Your task to perform on an android device: Show me popular videos on Youtube Image 0: 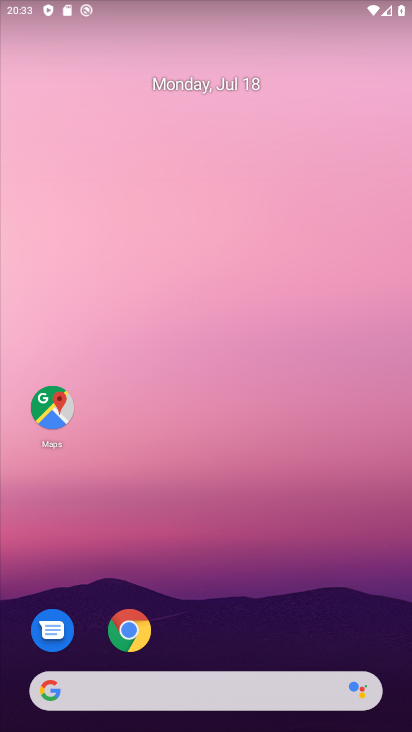
Step 0: drag from (226, 632) to (222, 320)
Your task to perform on an android device: Show me popular videos on Youtube Image 1: 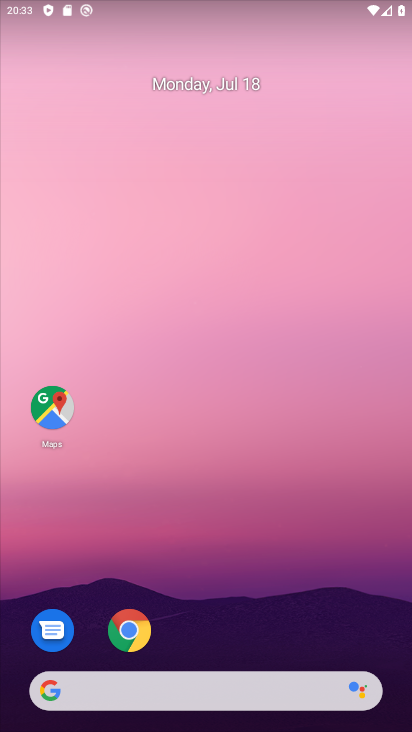
Step 1: drag from (292, 640) to (266, 12)
Your task to perform on an android device: Show me popular videos on Youtube Image 2: 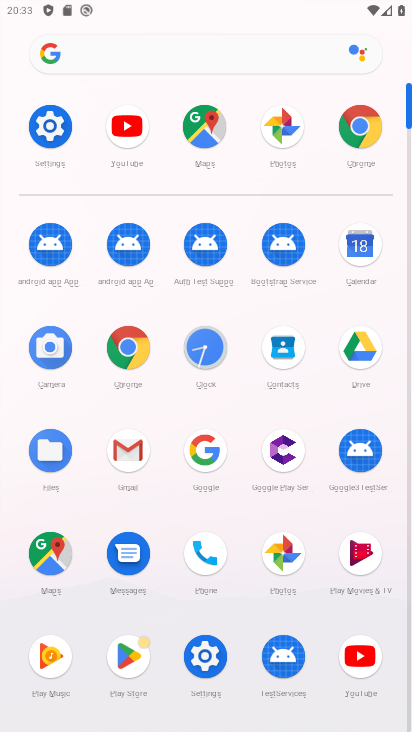
Step 2: click (351, 646)
Your task to perform on an android device: Show me popular videos on Youtube Image 3: 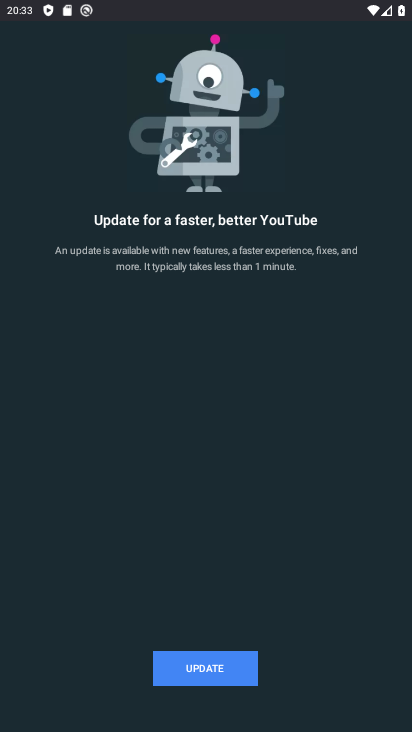
Step 3: task complete